Your task to perform on an android device: Open Google Chrome Image 0: 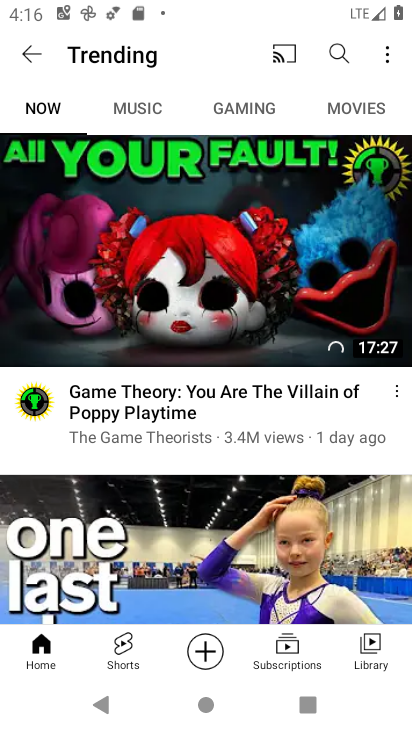
Step 0: press home button
Your task to perform on an android device: Open Google Chrome Image 1: 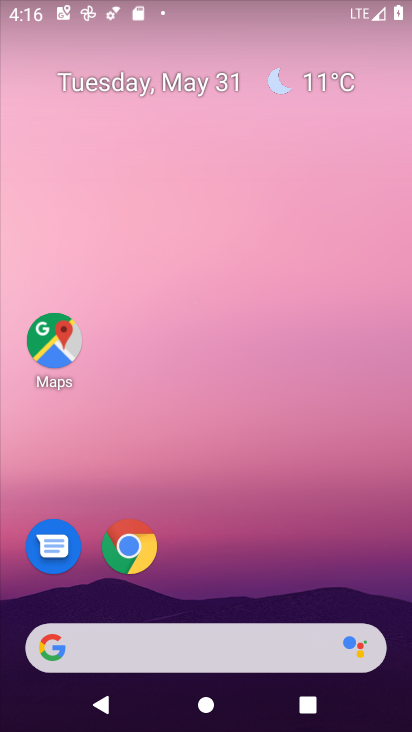
Step 1: click (144, 539)
Your task to perform on an android device: Open Google Chrome Image 2: 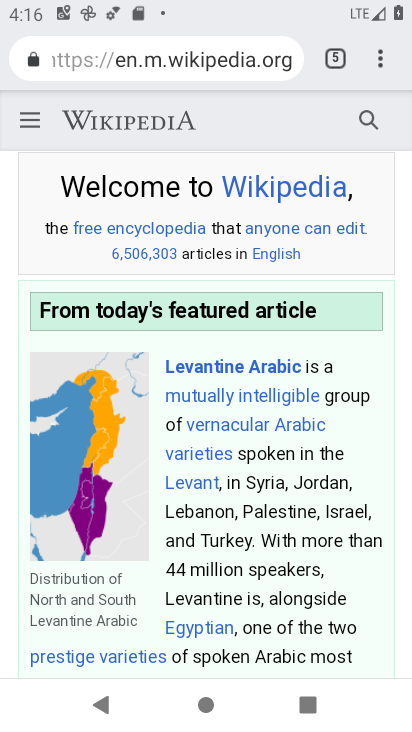
Step 2: task complete